Your task to perform on an android device: Play the last video I watched on Youtube Image 0: 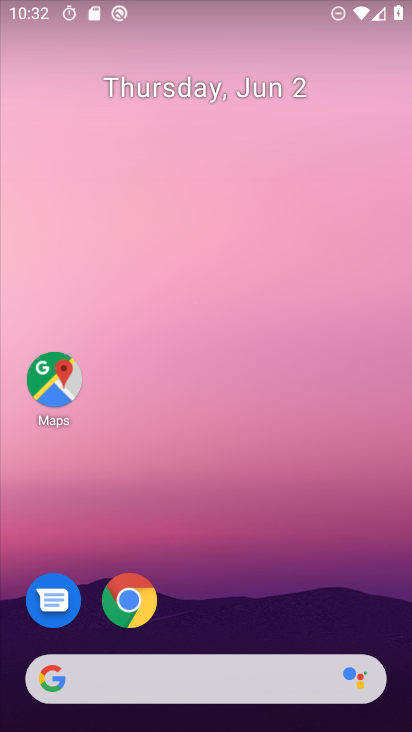
Step 0: drag from (231, 598) to (260, 69)
Your task to perform on an android device: Play the last video I watched on Youtube Image 1: 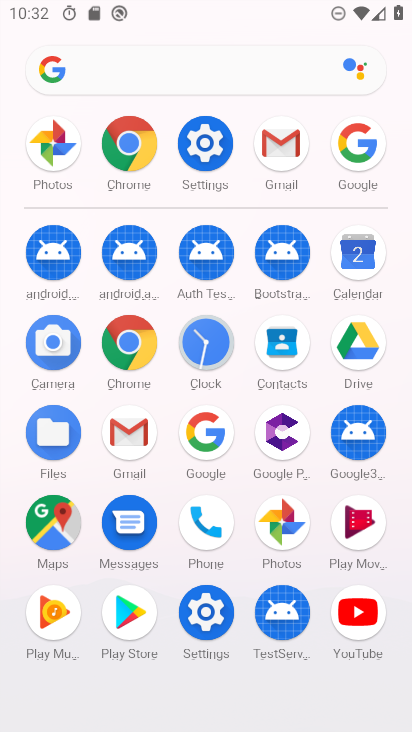
Step 1: click (359, 617)
Your task to perform on an android device: Play the last video I watched on Youtube Image 2: 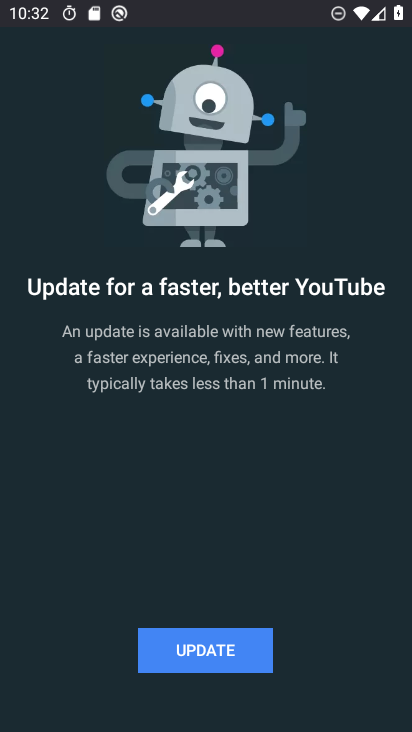
Step 2: click (208, 654)
Your task to perform on an android device: Play the last video I watched on Youtube Image 3: 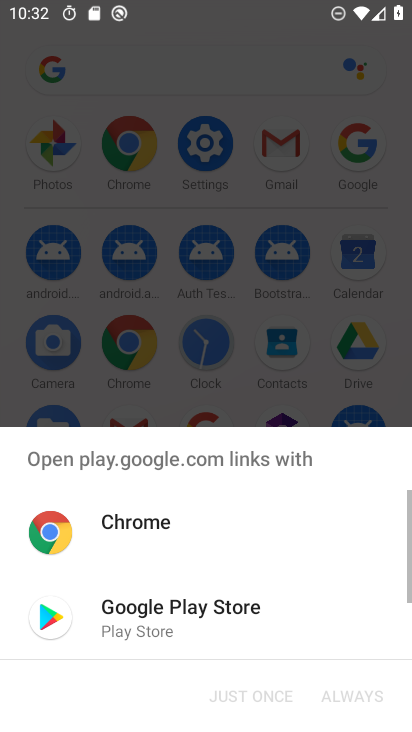
Step 3: click (130, 593)
Your task to perform on an android device: Play the last video I watched on Youtube Image 4: 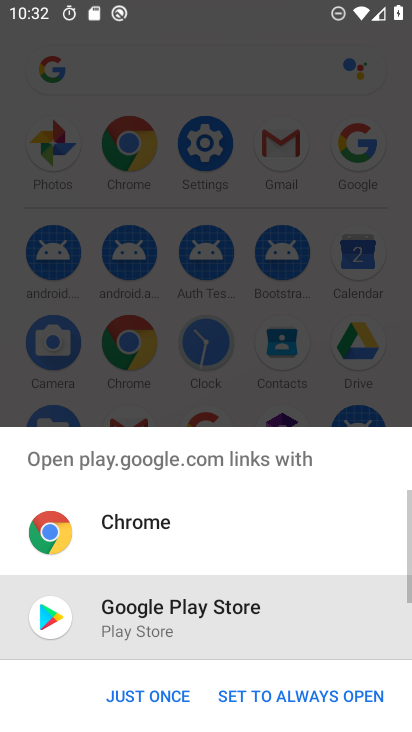
Step 4: click (149, 693)
Your task to perform on an android device: Play the last video I watched on Youtube Image 5: 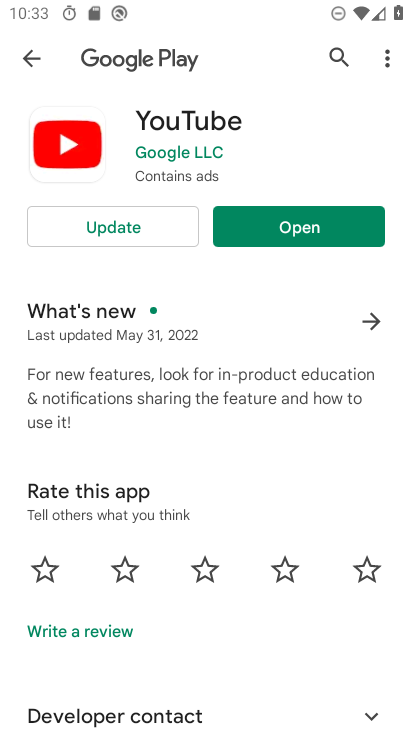
Step 5: click (276, 220)
Your task to perform on an android device: Play the last video I watched on Youtube Image 6: 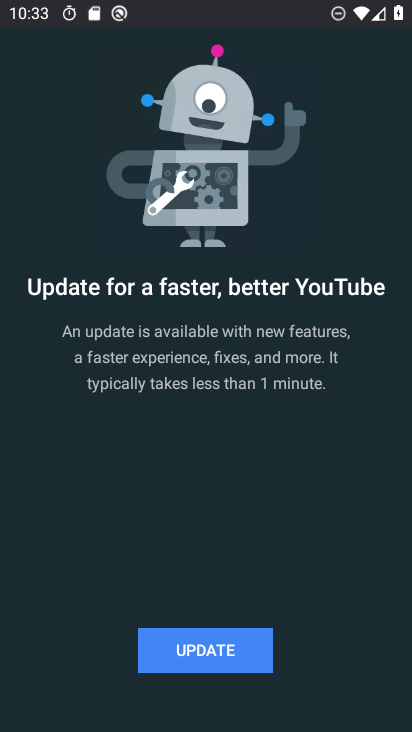
Step 6: task complete